Your task to perform on an android device: open a bookmark in the chrome app Image 0: 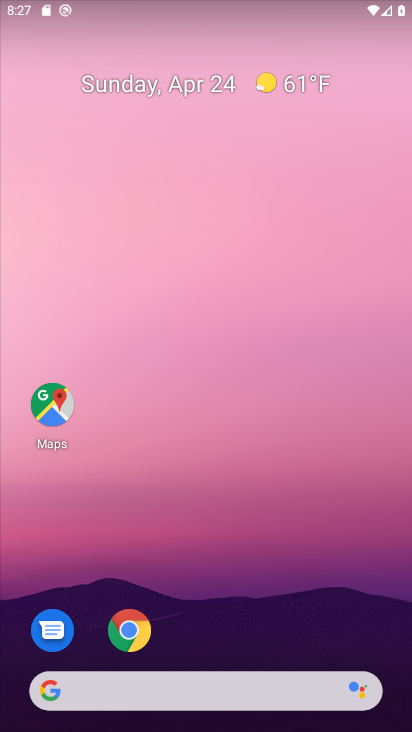
Step 0: drag from (346, 633) to (388, 89)
Your task to perform on an android device: open a bookmark in the chrome app Image 1: 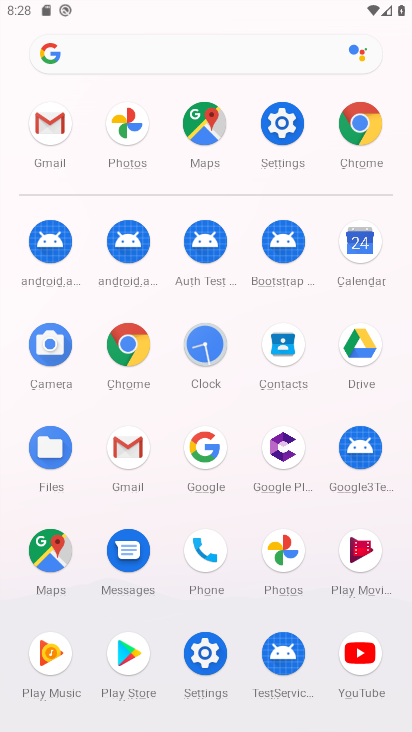
Step 1: click (360, 133)
Your task to perform on an android device: open a bookmark in the chrome app Image 2: 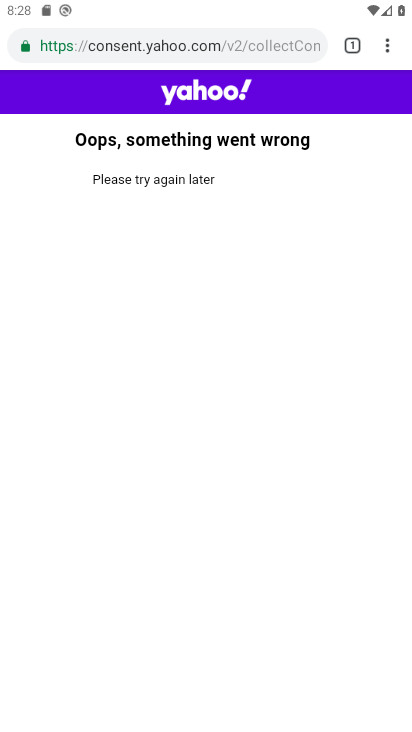
Step 2: click (387, 43)
Your task to perform on an android device: open a bookmark in the chrome app Image 3: 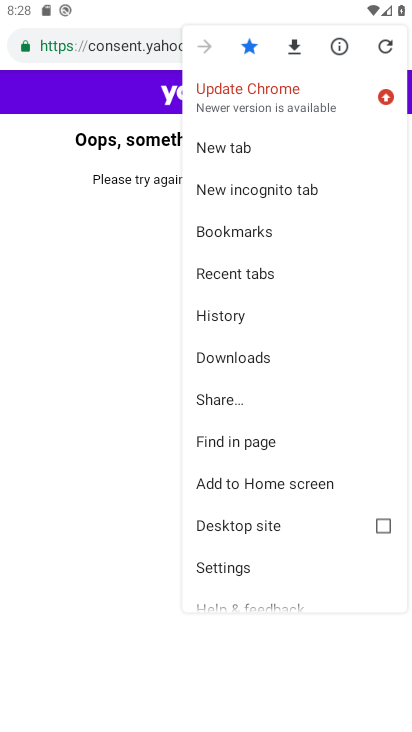
Step 3: click (250, 235)
Your task to perform on an android device: open a bookmark in the chrome app Image 4: 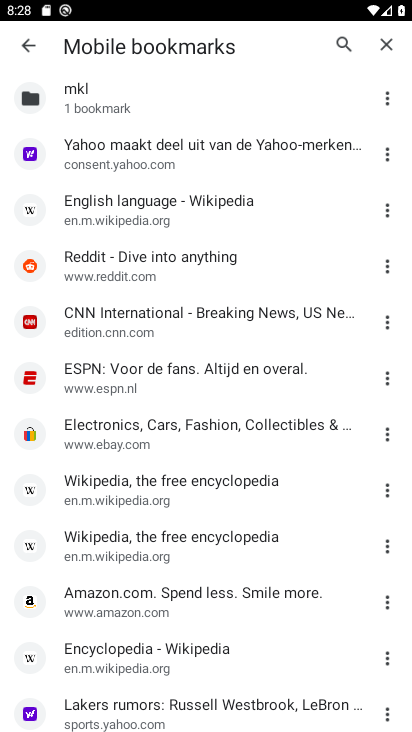
Step 4: click (191, 592)
Your task to perform on an android device: open a bookmark in the chrome app Image 5: 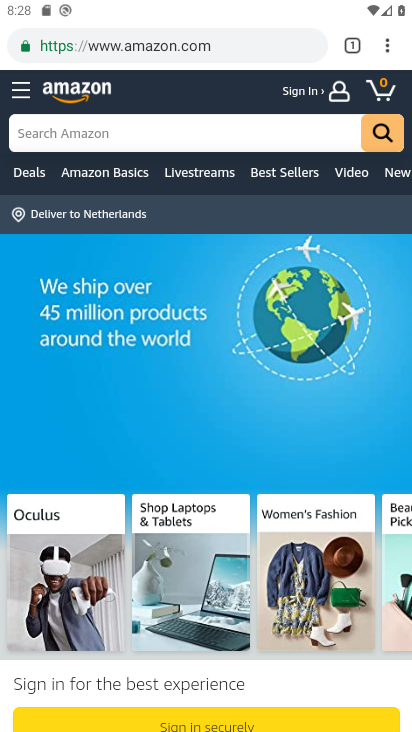
Step 5: task complete